Your task to perform on an android device: turn notification dots on Image 0: 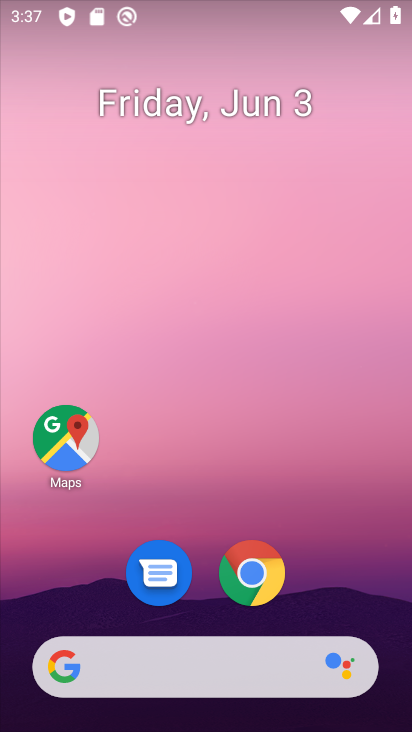
Step 0: drag from (398, 685) to (341, 101)
Your task to perform on an android device: turn notification dots on Image 1: 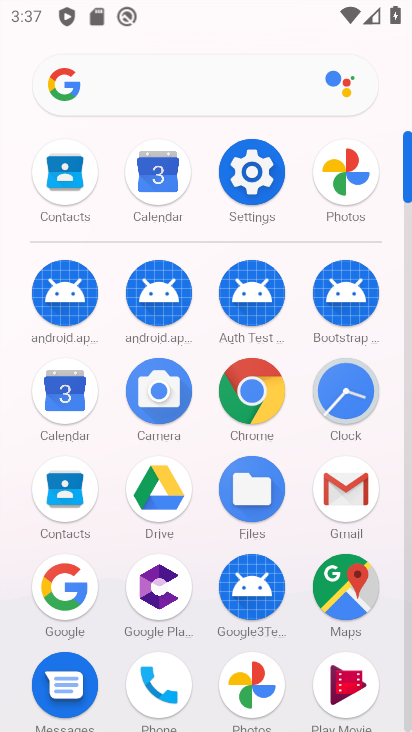
Step 1: click (257, 162)
Your task to perform on an android device: turn notification dots on Image 2: 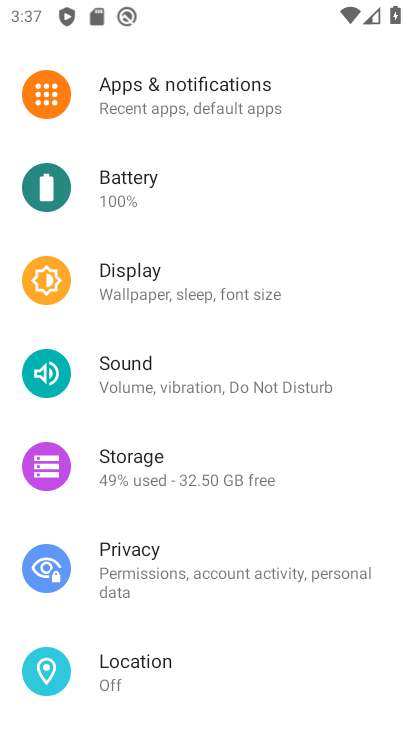
Step 2: click (210, 94)
Your task to perform on an android device: turn notification dots on Image 3: 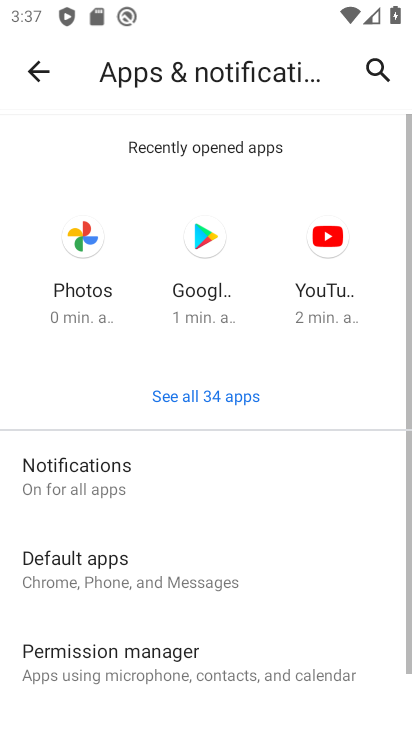
Step 3: click (68, 472)
Your task to perform on an android device: turn notification dots on Image 4: 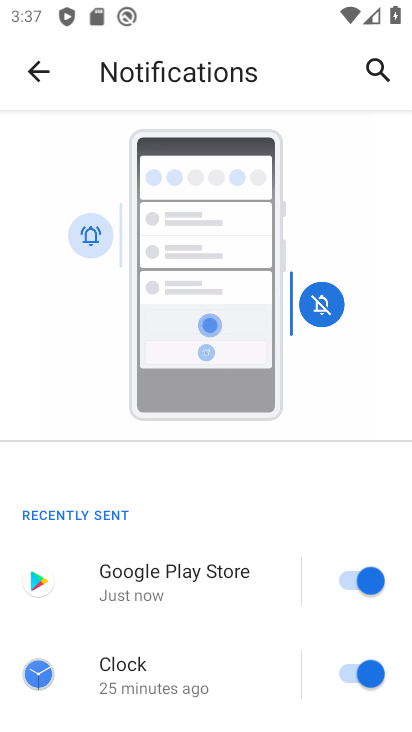
Step 4: drag from (247, 696) to (226, 158)
Your task to perform on an android device: turn notification dots on Image 5: 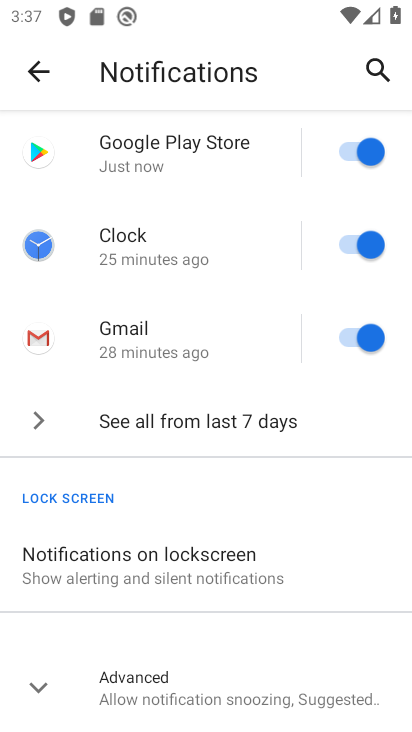
Step 5: click (40, 701)
Your task to perform on an android device: turn notification dots on Image 6: 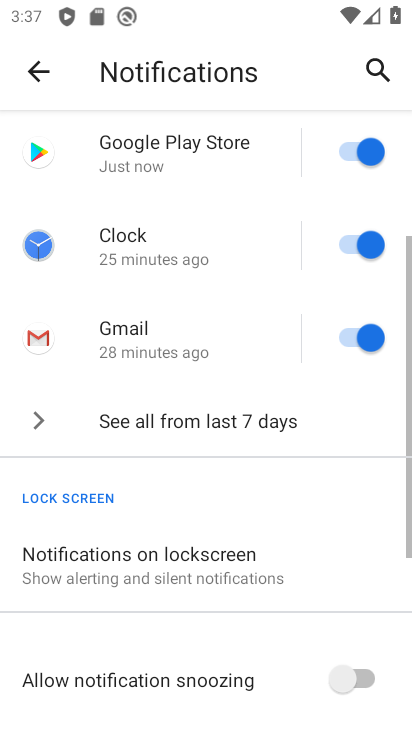
Step 6: task complete